Your task to perform on an android device: turn off airplane mode Image 0: 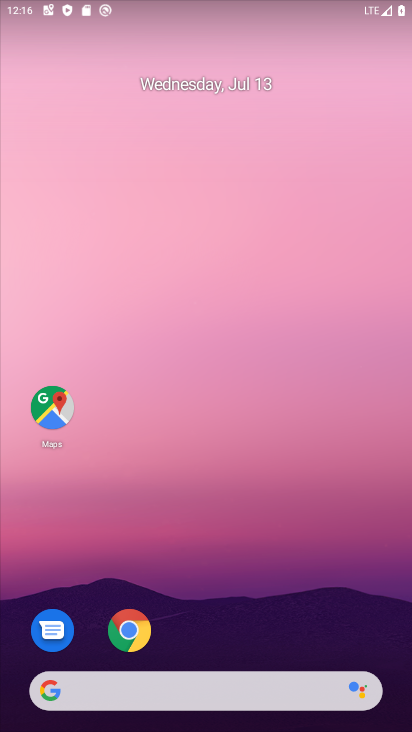
Step 0: drag from (330, 660) to (235, 105)
Your task to perform on an android device: turn off airplane mode Image 1: 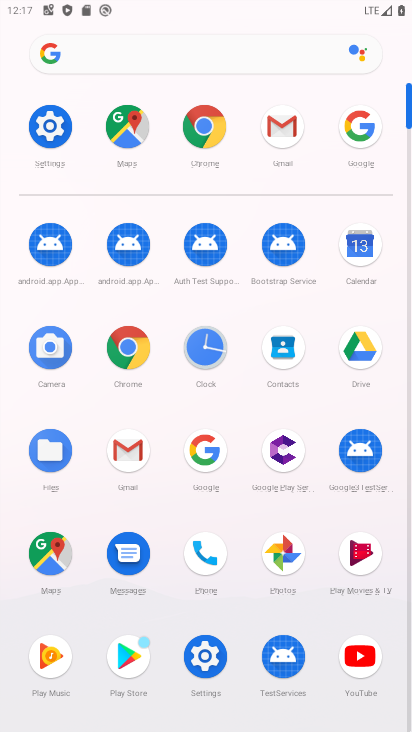
Step 1: task complete